Your task to perform on an android device: Go to CNN.com Image 0: 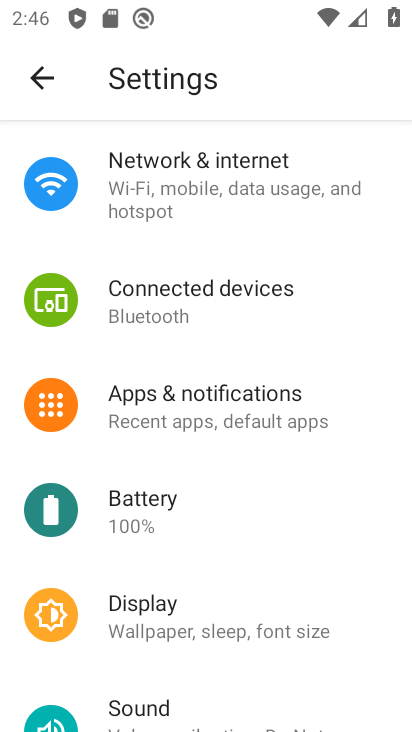
Step 0: press home button
Your task to perform on an android device: Go to CNN.com Image 1: 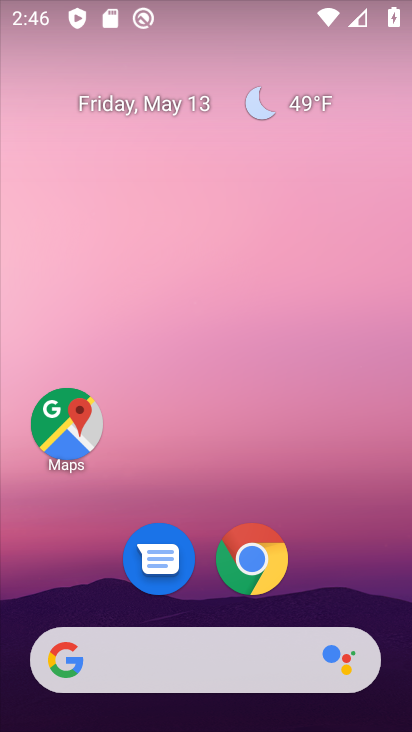
Step 1: click (246, 561)
Your task to perform on an android device: Go to CNN.com Image 2: 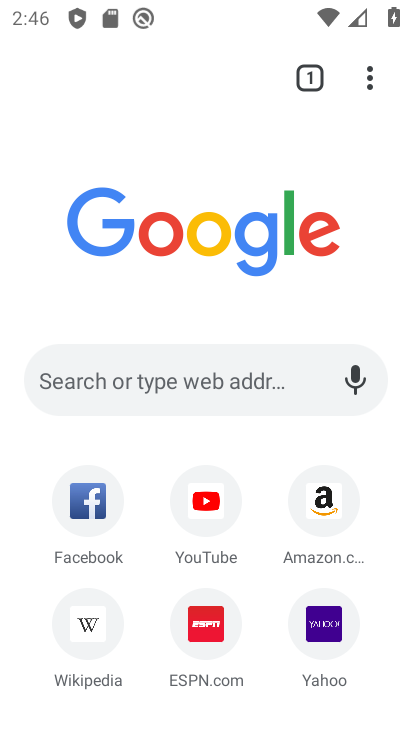
Step 2: click (202, 391)
Your task to perform on an android device: Go to CNN.com Image 3: 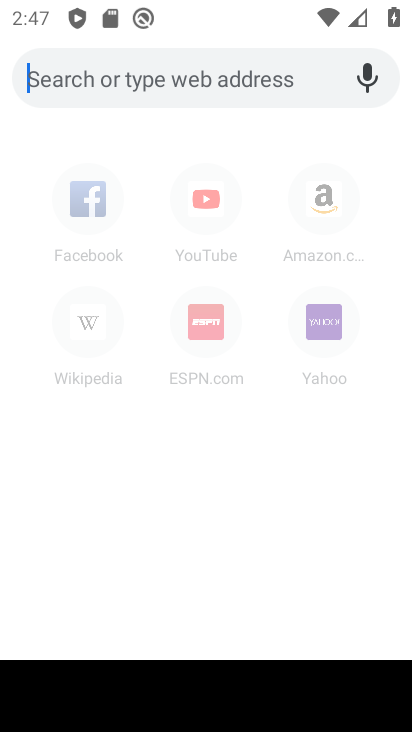
Step 3: type "cnn.com"
Your task to perform on an android device: Go to CNN.com Image 4: 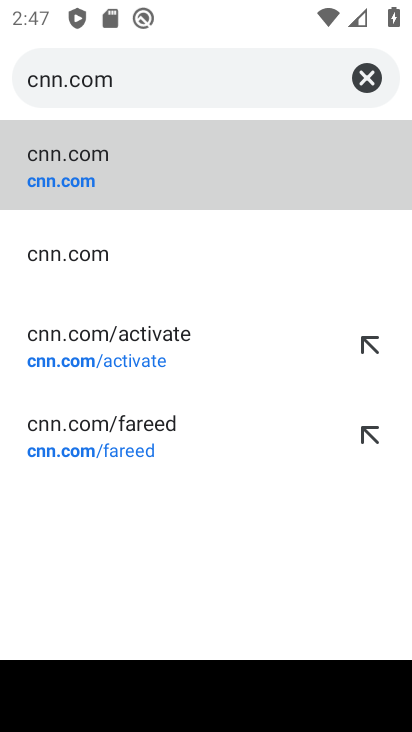
Step 4: click (32, 149)
Your task to perform on an android device: Go to CNN.com Image 5: 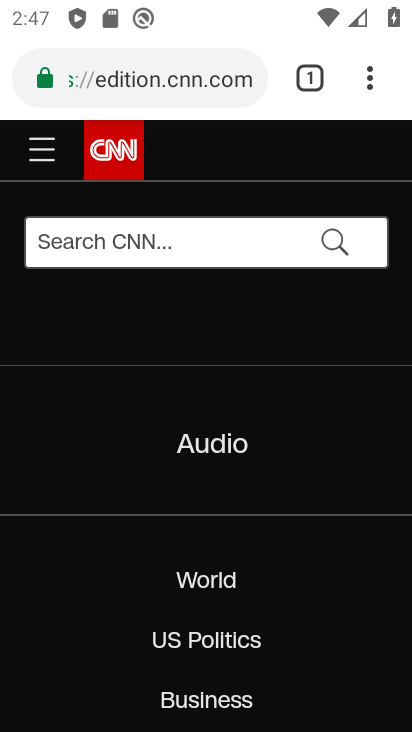
Step 5: task complete